Your task to perform on an android device: make emails show in primary in the gmail app Image 0: 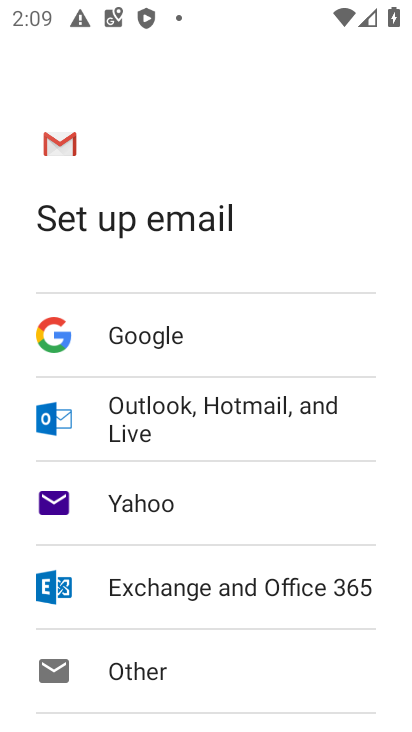
Step 0: press home button
Your task to perform on an android device: make emails show in primary in the gmail app Image 1: 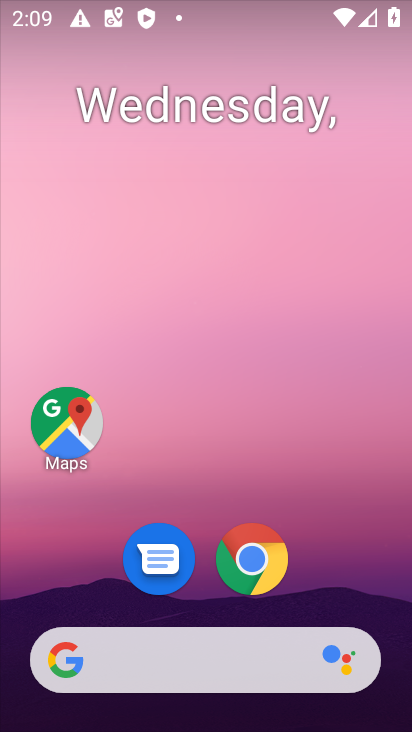
Step 1: drag from (207, 611) to (201, 46)
Your task to perform on an android device: make emails show in primary in the gmail app Image 2: 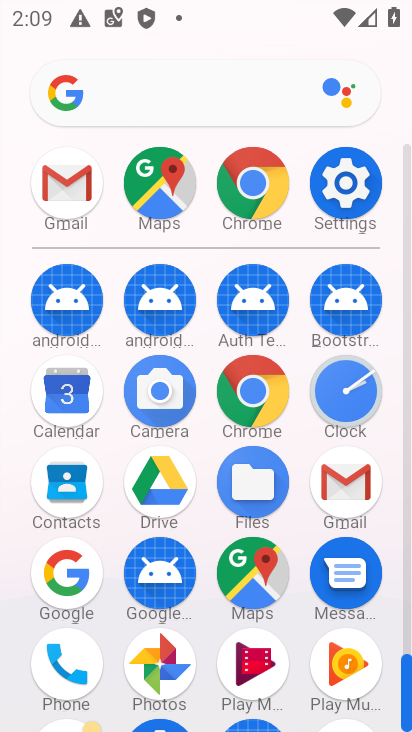
Step 2: click (357, 481)
Your task to perform on an android device: make emails show in primary in the gmail app Image 3: 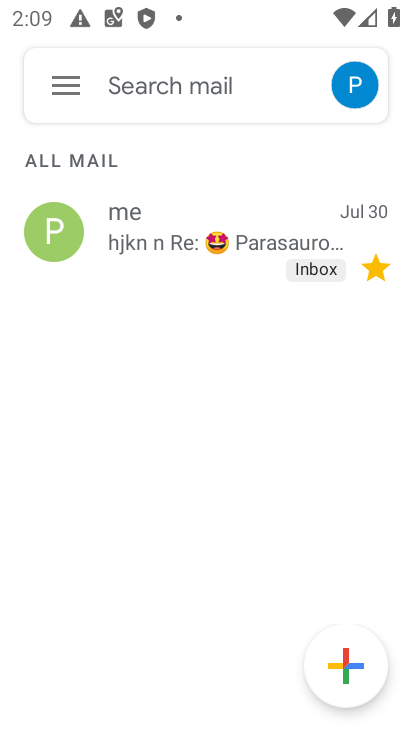
Step 3: click (59, 84)
Your task to perform on an android device: make emails show in primary in the gmail app Image 4: 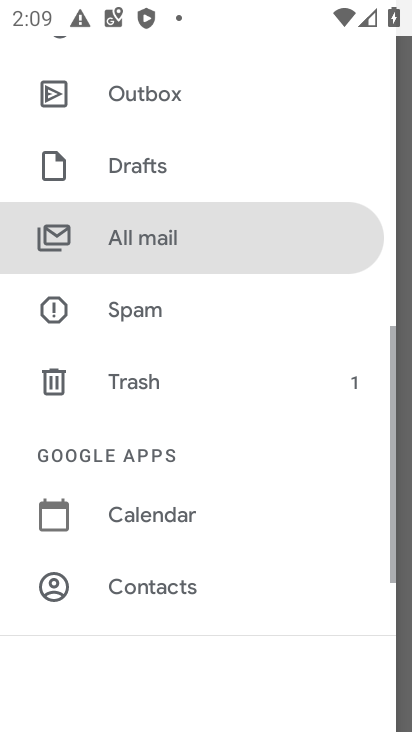
Step 4: drag from (139, 580) to (157, 321)
Your task to perform on an android device: make emails show in primary in the gmail app Image 5: 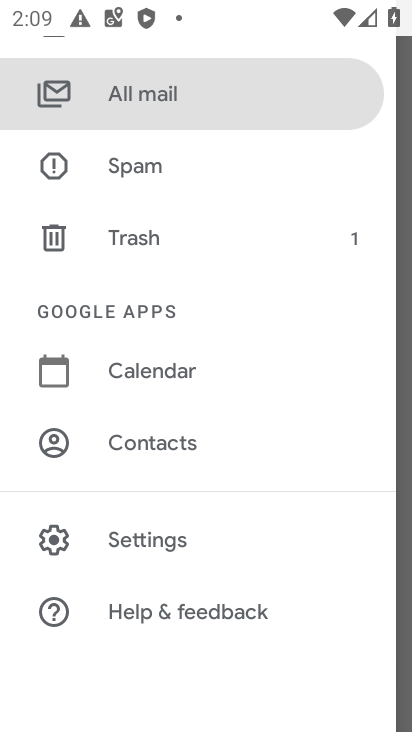
Step 5: click (139, 532)
Your task to perform on an android device: make emails show in primary in the gmail app Image 6: 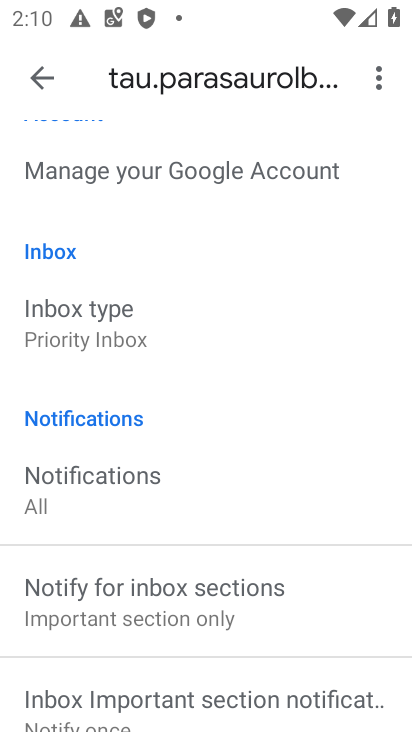
Step 6: click (90, 335)
Your task to perform on an android device: make emails show in primary in the gmail app Image 7: 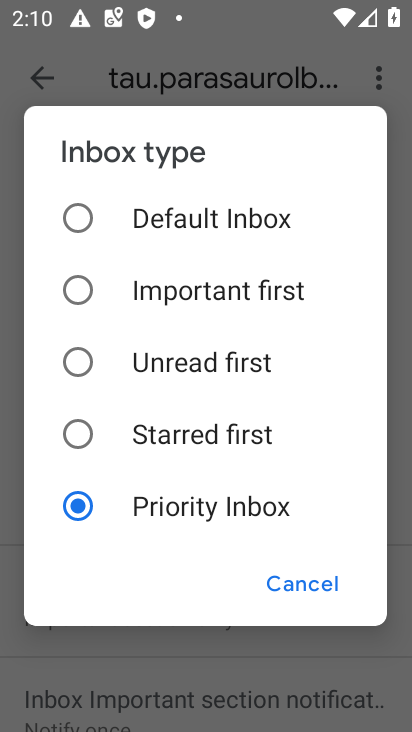
Step 7: click (75, 211)
Your task to perform on an android device: make emails show in primary in the gmail app Image 8: 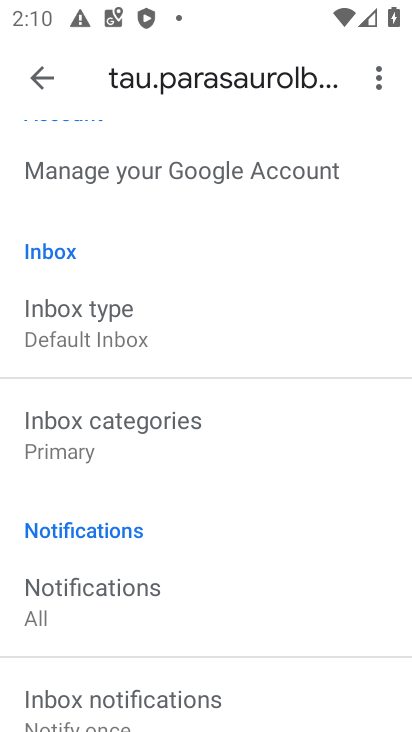
Step 8: task complete